Your task to perform on an android device: stop showing notifications on the lock screen Image 0: 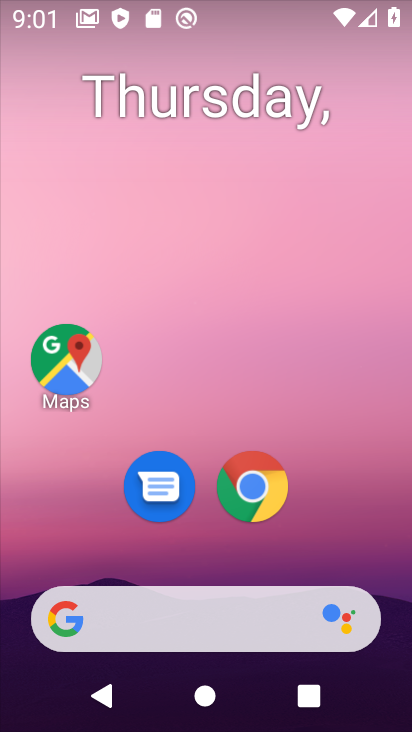
Step 0: drag from (267, 396) to (238, 0)
Your task to perform on an android device: stop showing notifications on the lock screen Image 1: 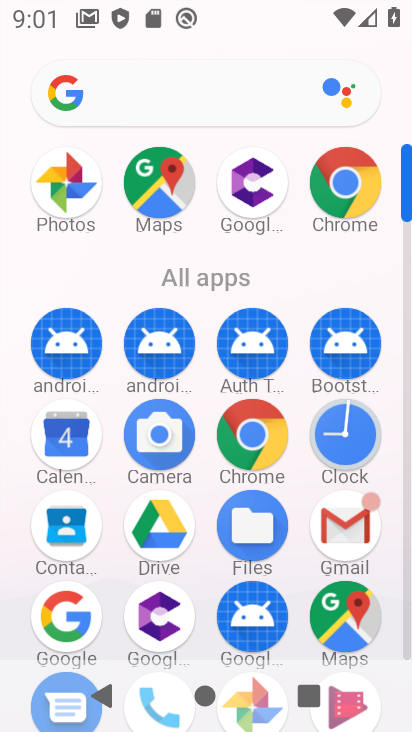
Step 1: drag from (216, 598) to (201, 327)
Your task to perform on an android device: stop showing notifications on the lock screen Image 2: 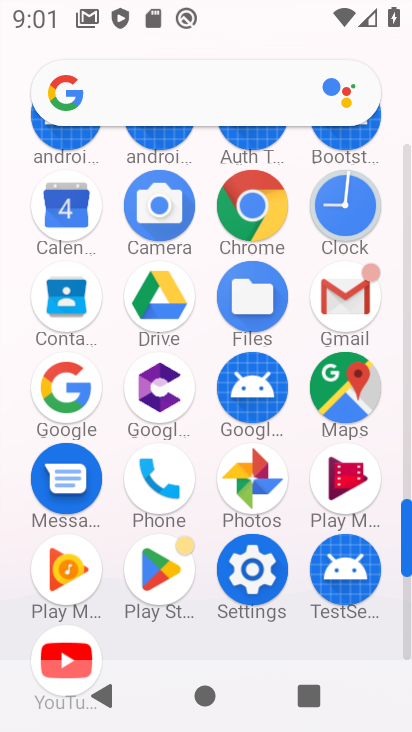
Step 2: click (257, 574)
Your task to perform on an android device: stop showing notifications on the lock screen Image 3: 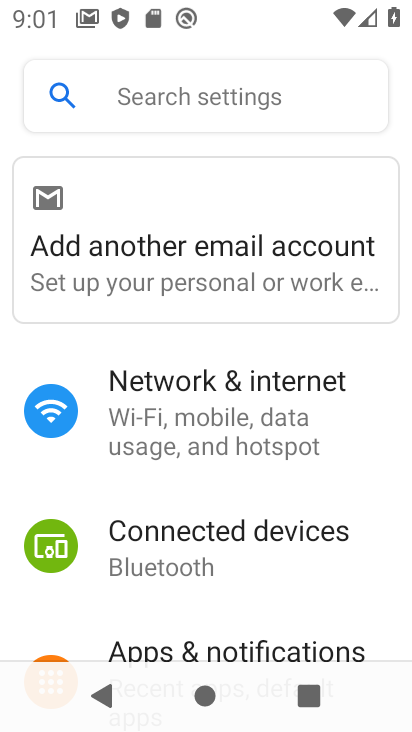
Step 3: drag from (227, 413) to (169, 90)
Your task to perform on an android device: stop showing notifications on the lock screen Image 4: 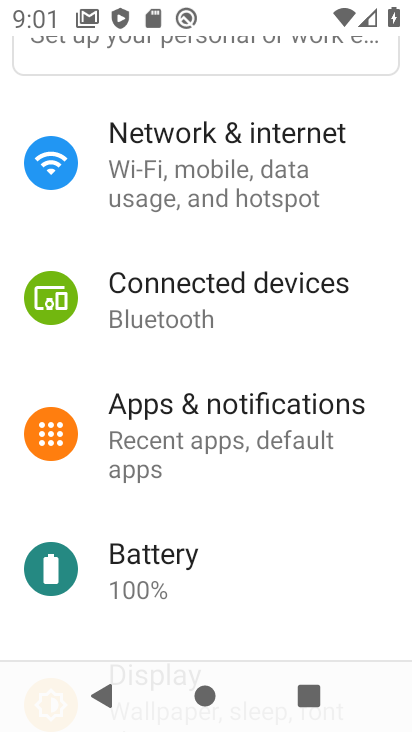
Step 4: click (193, 430)
Your task to perform on an android device: stop showing notifications on the lock screen Image 5: 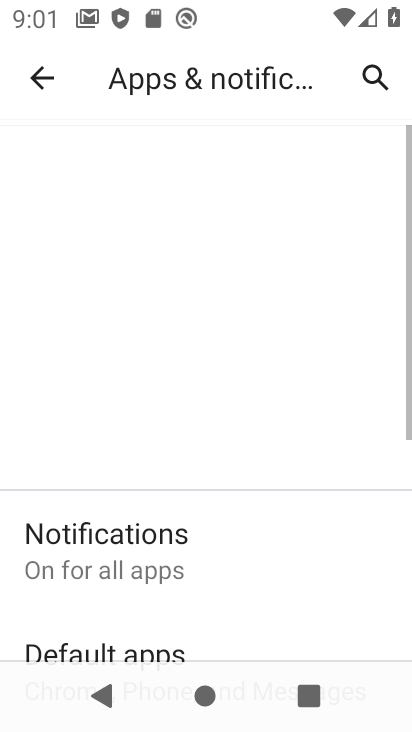
Step 5: task complete